Your task to perform on an android device: What's on my calendar tomorrow? Image 0: 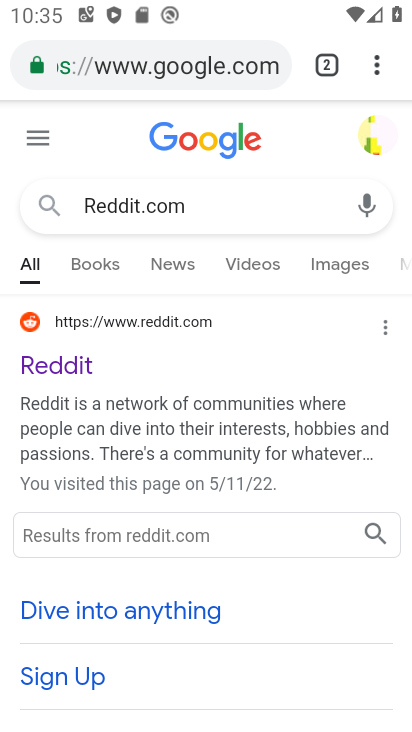
Step 0: press home button
Your task to perform on an android device: What's on my calendar tomorrow? Image 1: 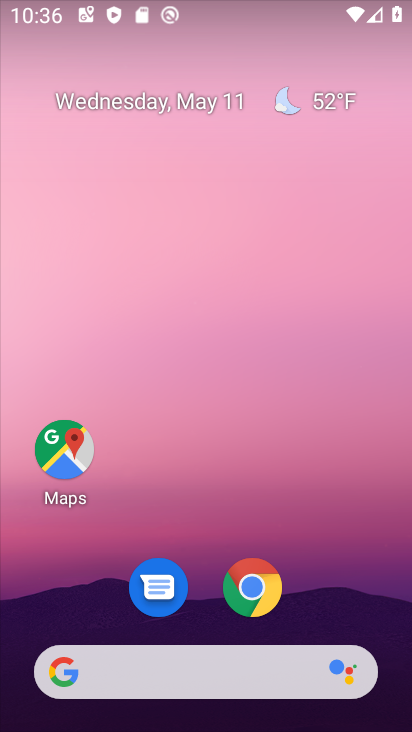
Step 1: drag from (294, 670) to (278, 163)
Your task to perform on an android device: What's on my calendar tomorrow? Image 2: 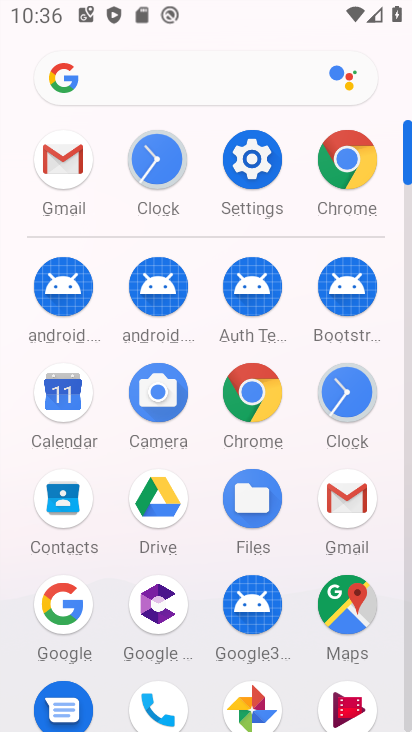
Step 2: click (64, 407)
Your task to perform on an android device: What's on my calendar tomorrow? Image 3: 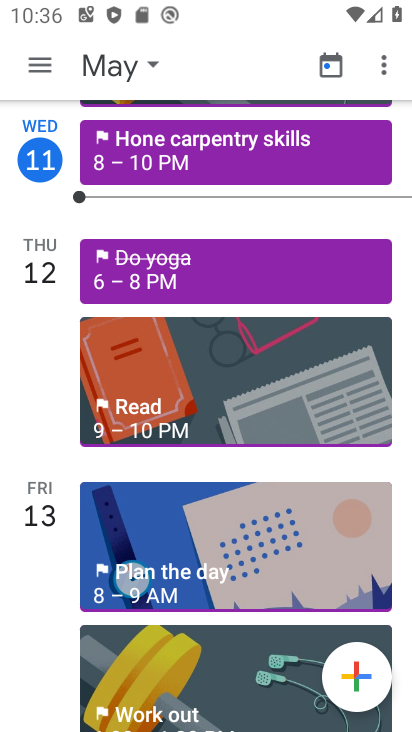
Step 3: task complete